Your task to perform on an android device: Toggle the flashlight Image 0: 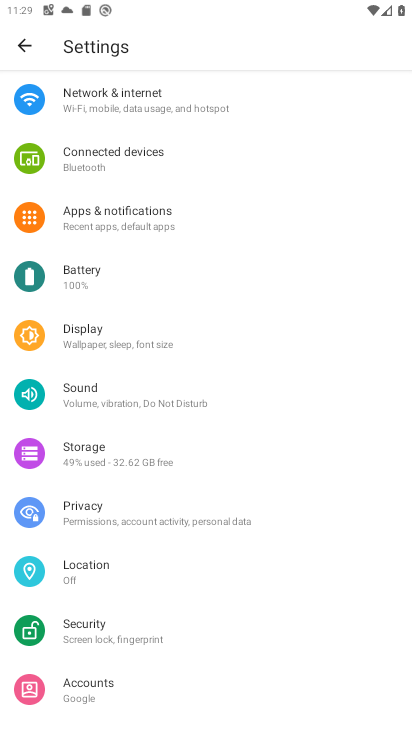
Step 0: click (125, 336)
Your task to perform on an android device: Toggle the flashlight Image 1: 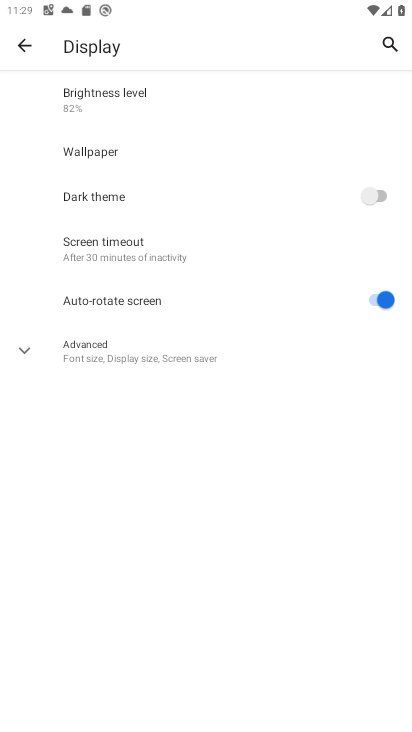
Step 1: click (197, 257)
Your task to perform on an android device: Toggle the flashlight Image 2: 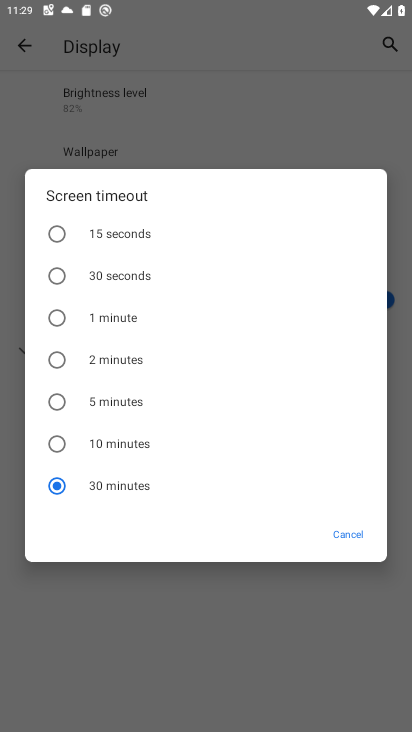
Step 2: task complete